Your task to perform on an android device: see sites visited before in the chrome app Image 0: 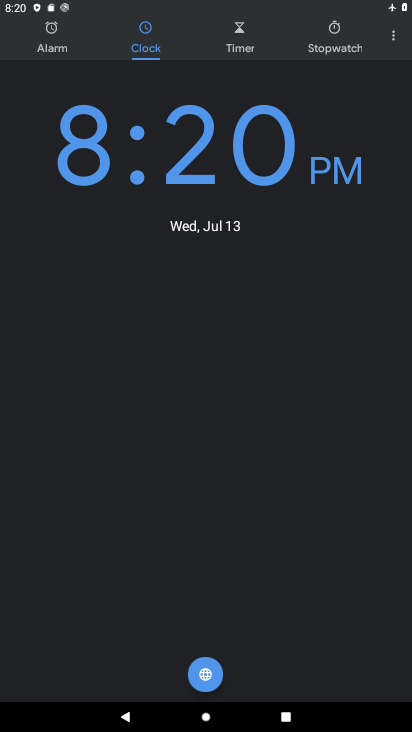
Step 0: press home button
Your task to perform on an android device: see sites visited before in the chrome app Image 1: 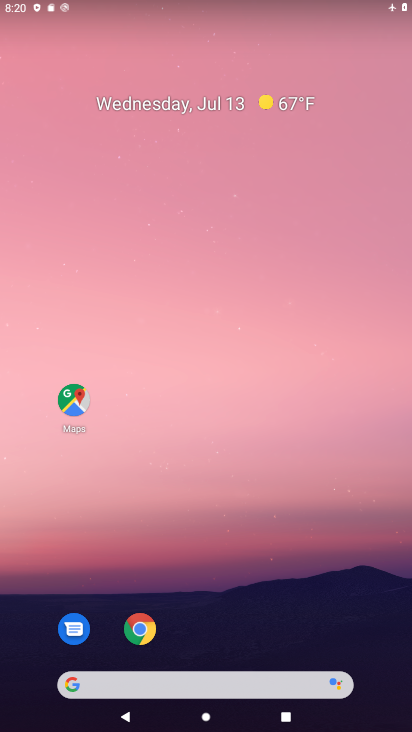
Step 1: click (151, 631)
Your task to perform on an android device: see sites visited before in the chrome app Image 2: 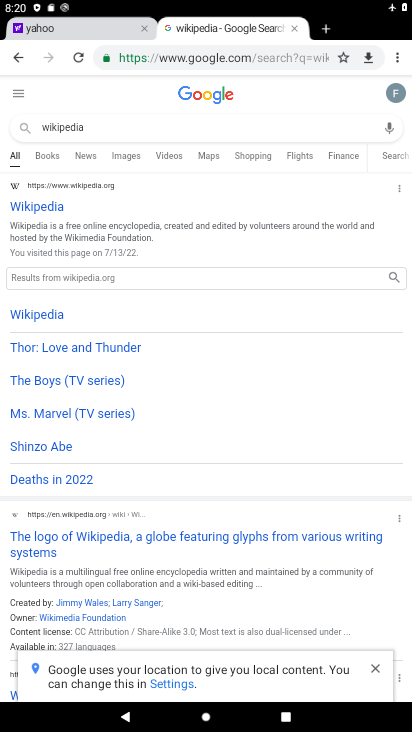
Step 2: click (399, 51)
Your task to perform on an android device: see sites visited before in the chrome app Image 3: 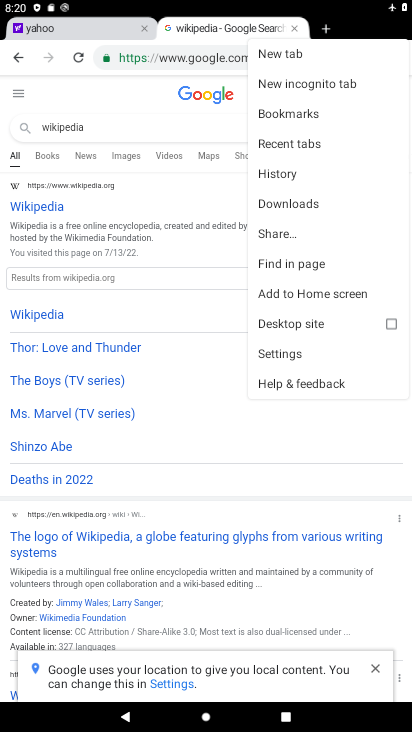
Step 3: click (288, 163)
Your task to perform on an android device: see sites visited before in the chrome app Image 4: 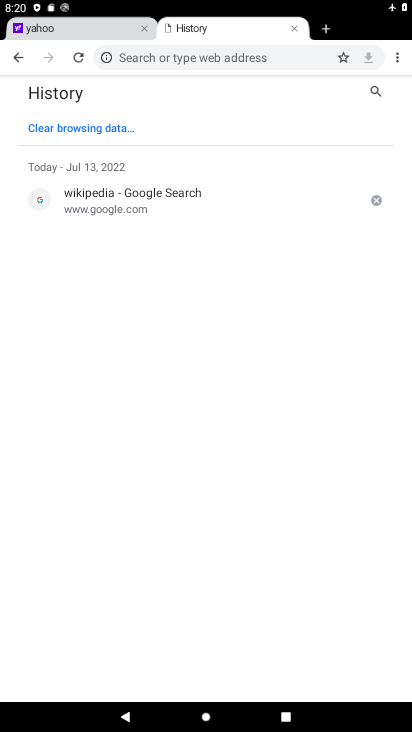
Step 4: task complete